Your task to perform on an android device: toggle notification dots Image 0: 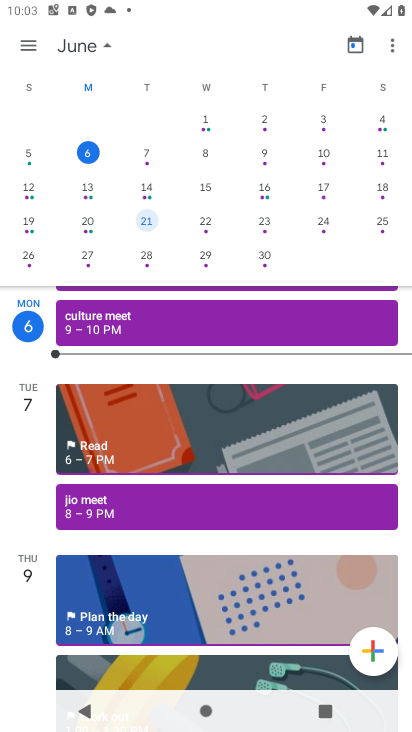
Step 0: press home button
Your task to perform on an android device: toggle notification dots Image 1: 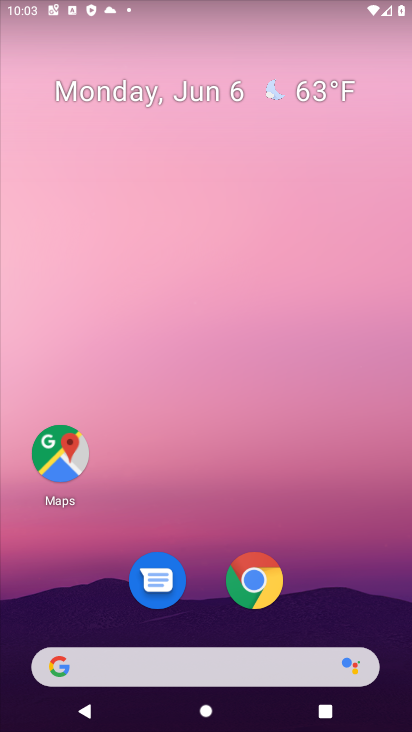
Step 1: drag from (328, 610) to (350, 97)
Your task to perform on an android device: toggle notification dots Image 2: 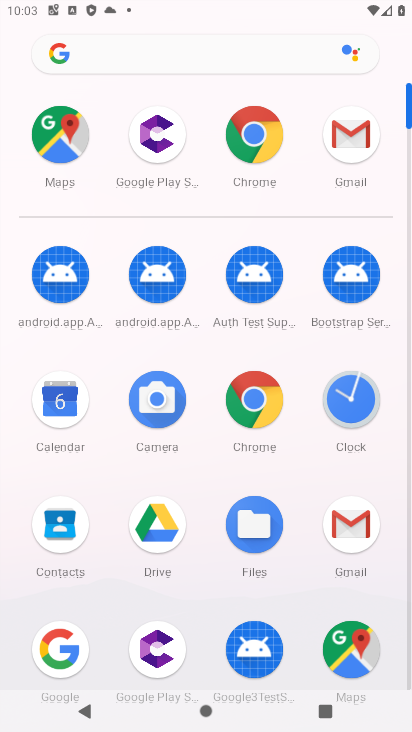
Step 2: drag from (397, 580) to (389, 376)
Your task to perform on an android device: toggle notification dots Image 3: 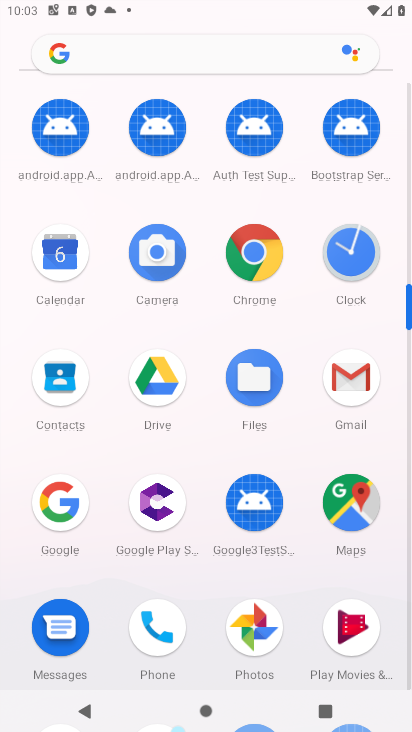
Step 3: drag from (395, 629) to (329, 109)
Your task to perform on an android device: toggle notification dots Image 4: 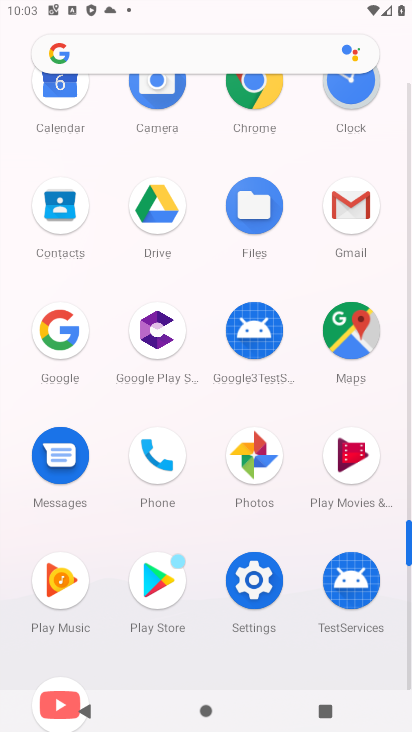
Step 4: click (258, 596)
Your task to perform on an android device: toggle notification dots Image 5: 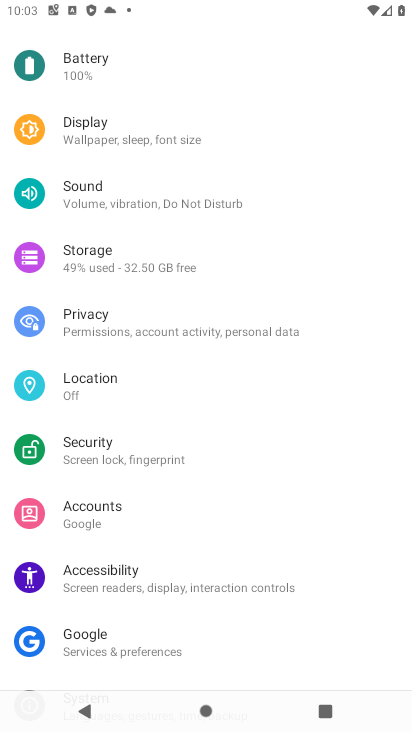
Step 5: drag from (188, 203) to (271, 716)
Your task to perform on an android device: toggle notification dots Image 6: 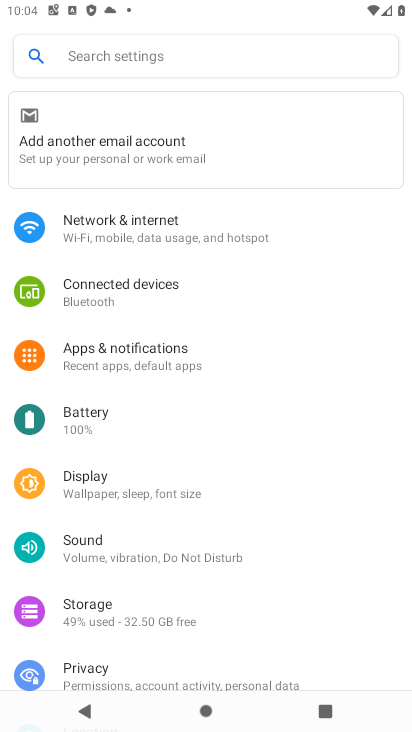
Step 6: click (162, 365)
Your task to perform on an android device: toggle notification dots Image 7: 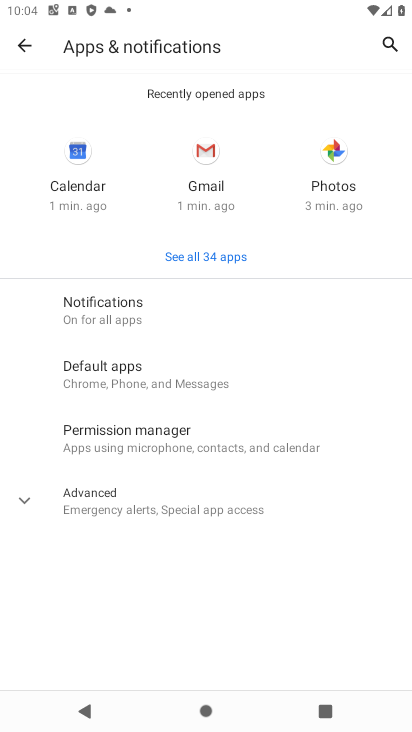
Step 7: click (102, 307)
Your task to perform on an android device: toggle notification dots Image 8: 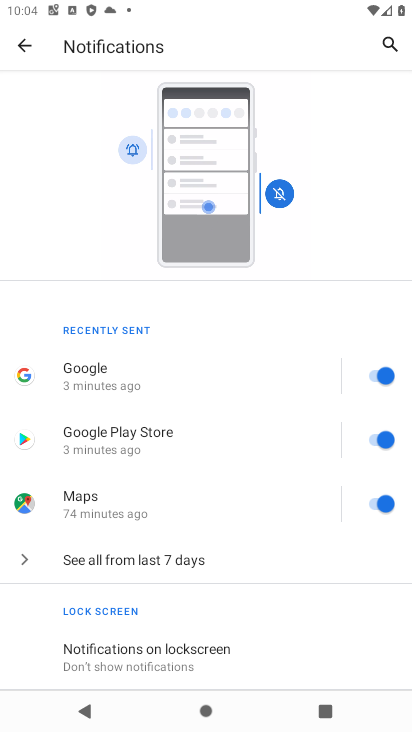
Step 8: drag from (180, 650) to (192, 93)
Your task to perform on an android device: toggle notification dots Image 9: 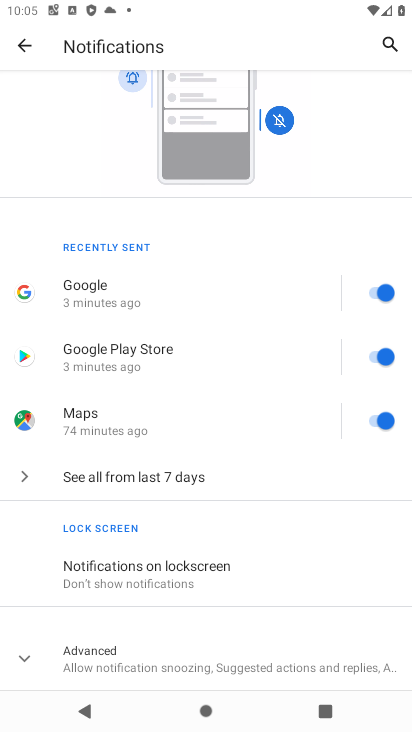
Step 9: click (109, 654)
Your task to perform on an android device: toggle notification dots Image 10: 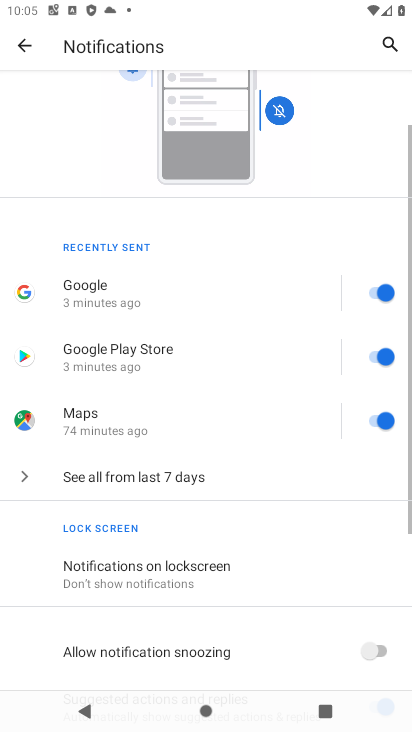
Step 10: drag from (113, 651) to (206, 113)
Your task to perform on an android device: toggle notification dots Image 11: 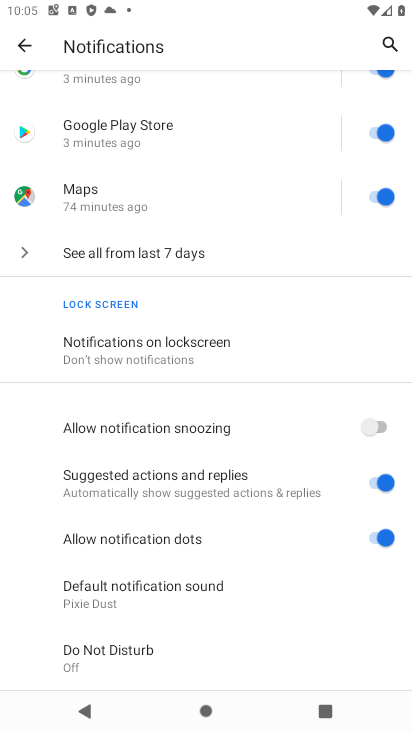
Step 11: click (378, 525)
Your task to perform on an android device: toggle notification dots Image 12: 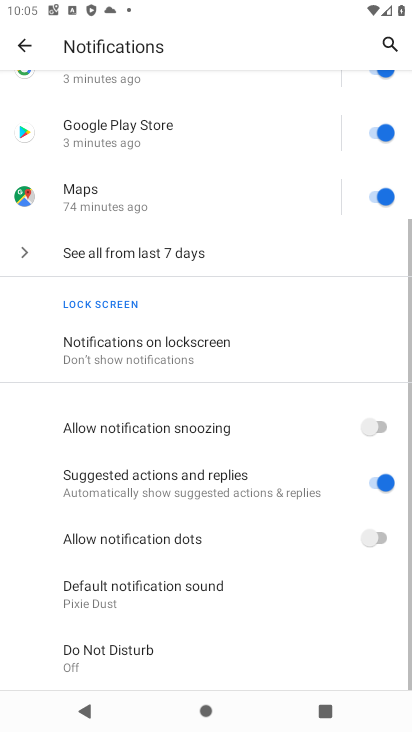
Step 12: task complete